Your task to perform on an android device: Open Yahoo.com Image 0: 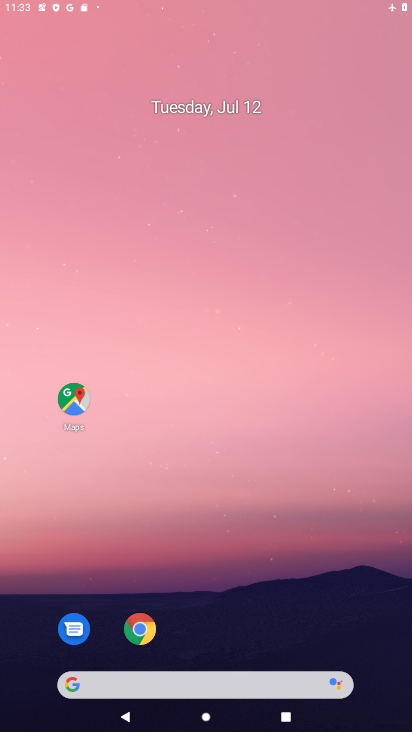
Step 0: drag from (225, 621) to (222, 229)
Your task to perform on an android device: Open Yahoo.com Image 1: 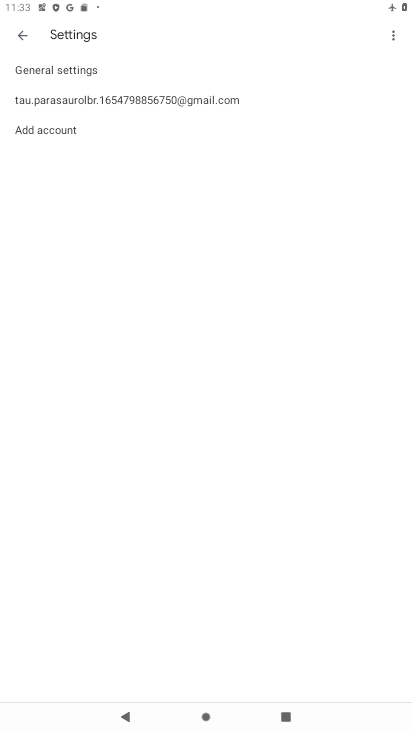
Step 1: press home button
Your task to perform on an android device: Open Yahoo.com Image 2: 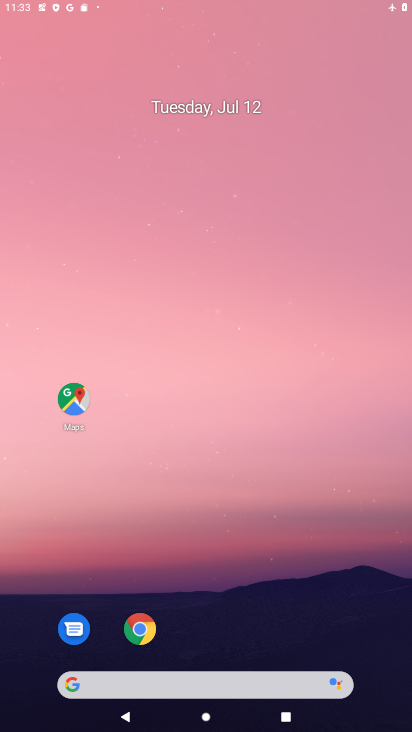
Step 2: drag from (265, 585) to (279, 279)
Your task to perform on an android device: Open Yahoo.com Image 3: 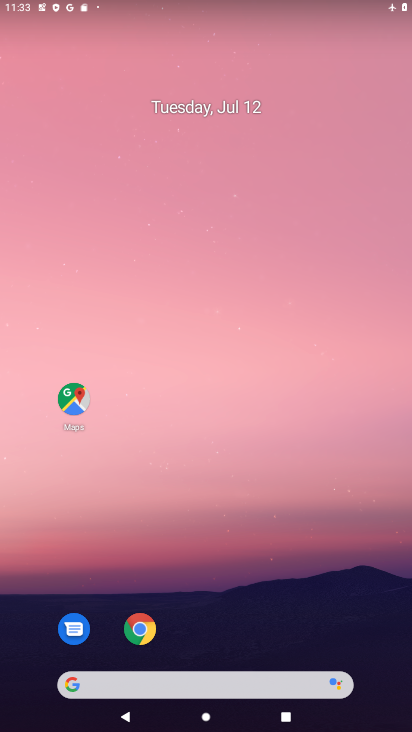
Step 3: drag from (230, 593) to (232, 114)
Your task to perform on an android device: Open Yahoo.com Image 4: 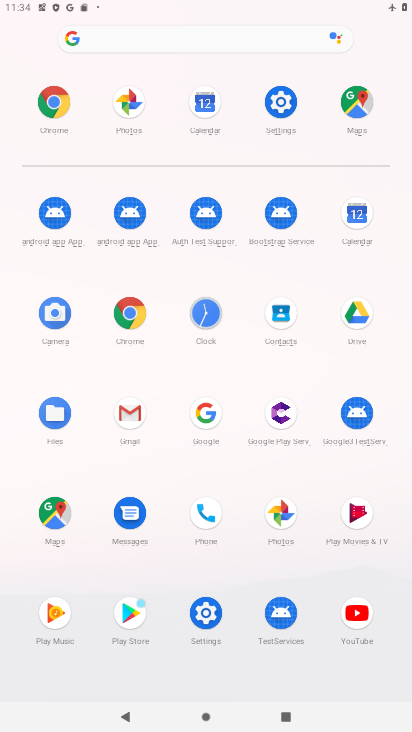
Step 4: click (129, 309)
Your task to perform on an android device: Open Yahoo.com Image 5: 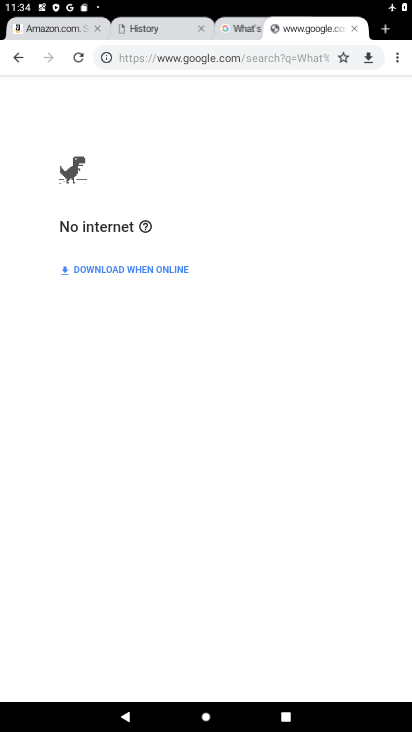
Step 5: click (400, 52)
Your task to perform on an android device: Open Yahoo.com Image 6: 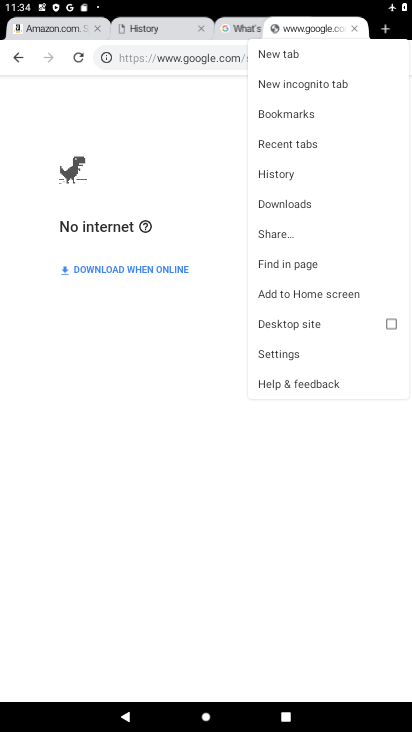
Step 6: click (293, 53)
Your task to perform on an android device: Open Yahoo.com Image 7: 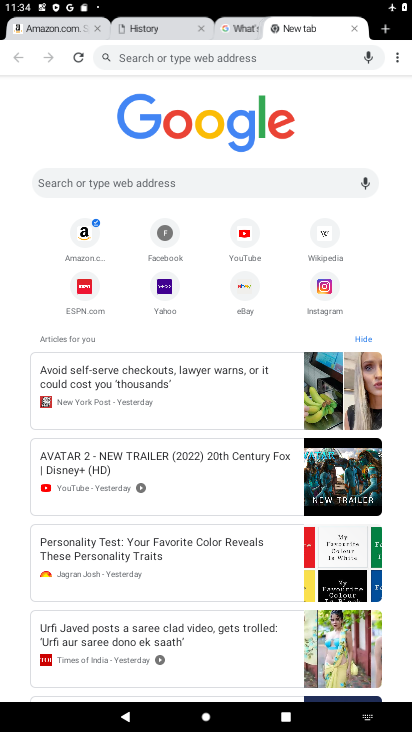
Step 7: click (169, 284)
Your task to perform on an android device: Open Yahoo.com Image 8: 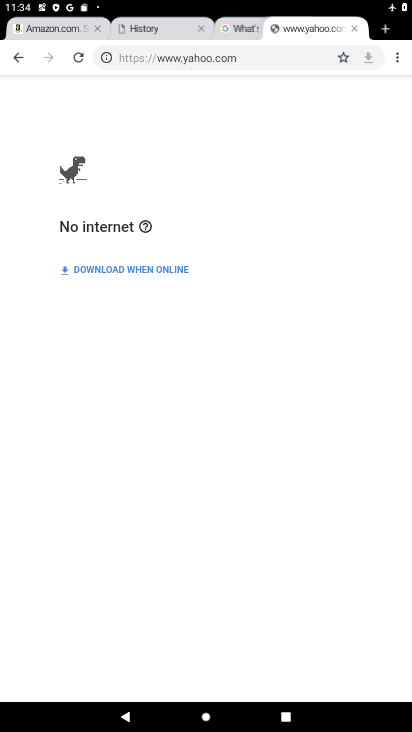
Step 8: task complete